Your task to perform on an android device: find snoozed emails in the gmail app Image 0: 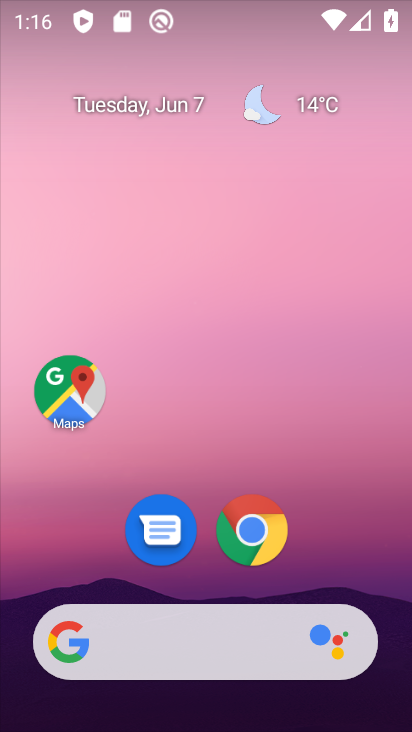
Step 0: drag from (377, 554) to (67, 49)
Your task to perform on an android device: find snoozed emails in the gmail app Image 1: 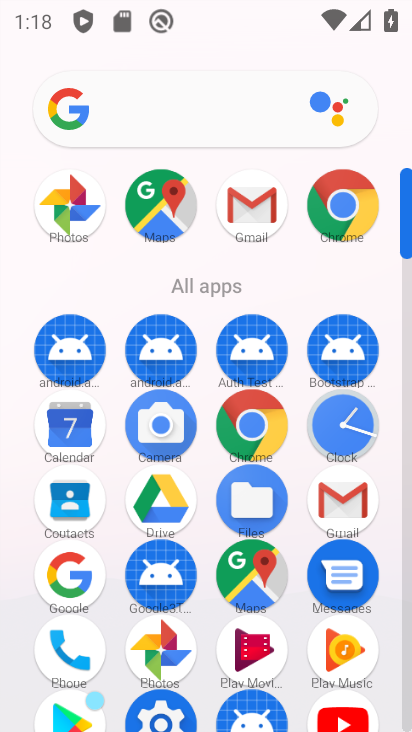
Step 1: click (316, 474)
Your task to perform on an android device: find snoozed emails in the gmail app Image 2: 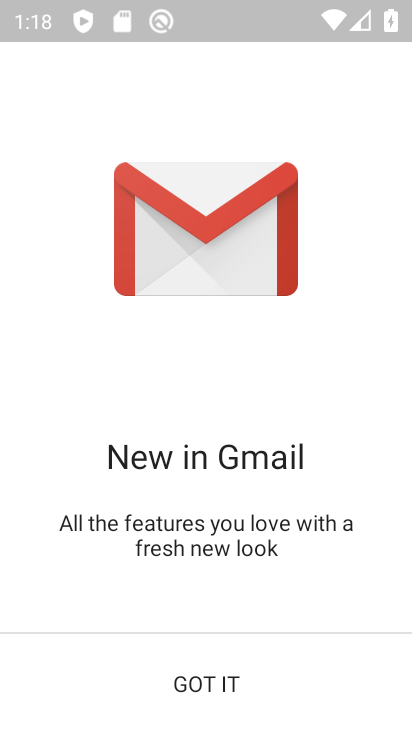
Step 2: click (193, 662)
Your task to perform on an android device: find snoozed emails in the gmail app Image 3: 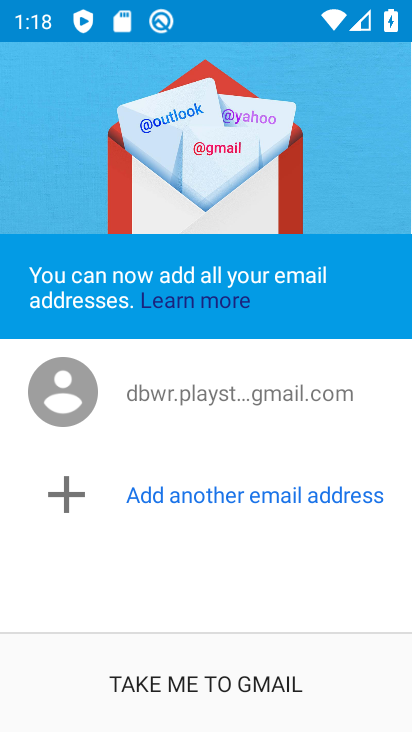
Step 3: click (193, 662)
Your task to perform on an android device: find snoozed emails in the gmail app Image 4: 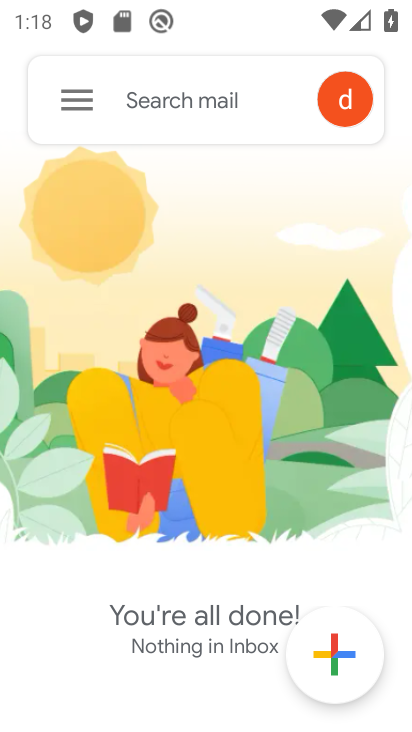
Step 4: click (69, 102)
Your task to perform on an android device: find snoozed emails in the gmail app Image 5: 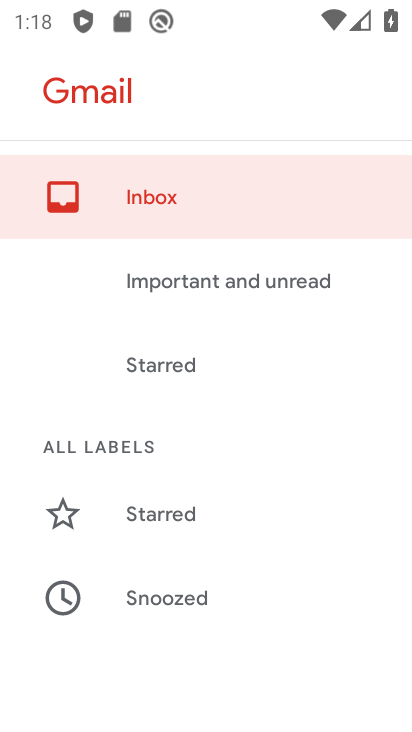
Step 5: drag from (181, 591) to (227, 203)
Your task to perform on an android device: find snoozed emails in the gmail app Image 6: 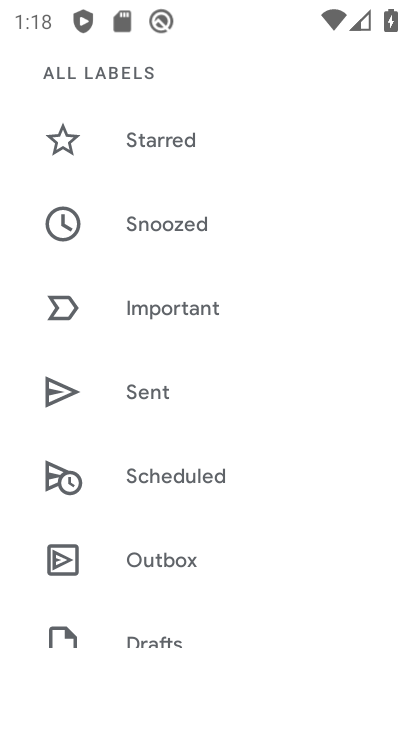
Step 6: click (176, 210)
Your task to perform on an android device: find snoozed emails in the gmail app Image 7: 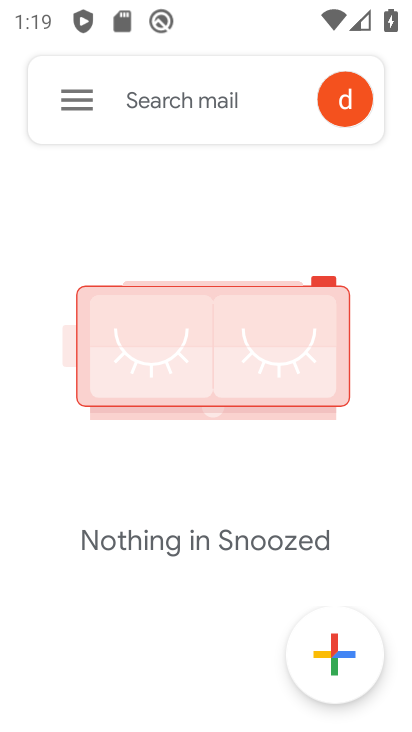
Step 7: task complete